Your task to perform on an android device: Open maps Image 0: 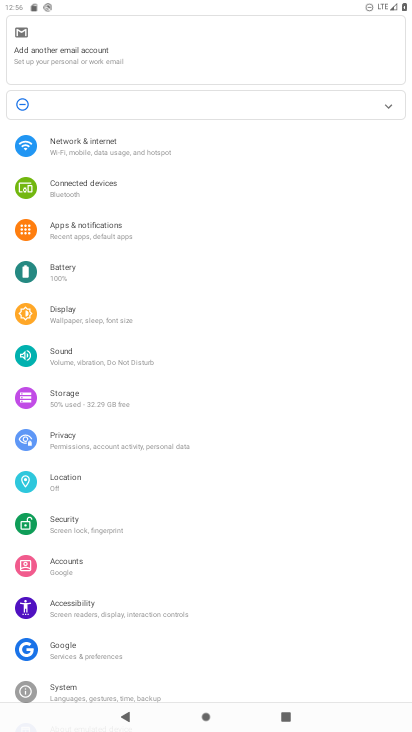
Step 0: press home button
Your task to perform on an android device: Open maps Image 1: 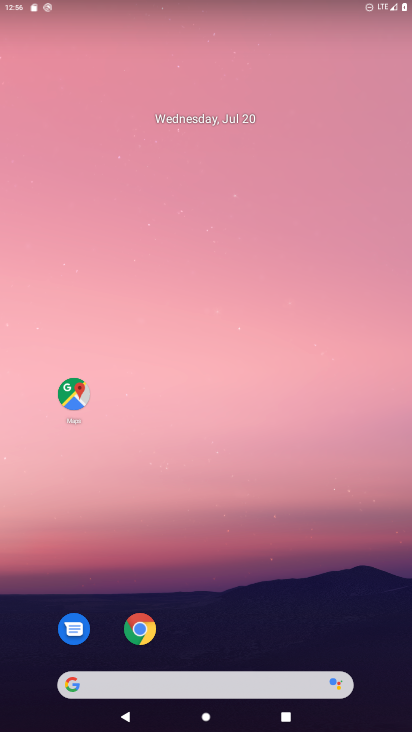
Step 1: click (67, 400)
Your task to perform on an android device: Open maps Image 2: 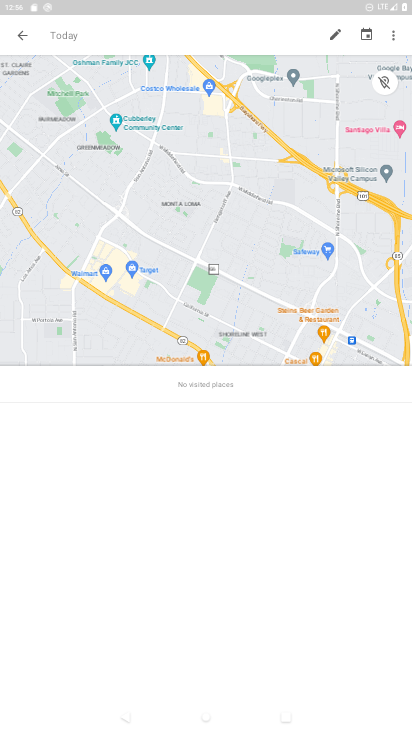
Step 2: task complete